Your task to perform on an android device: Set an alarmfor 5pm Image 0: 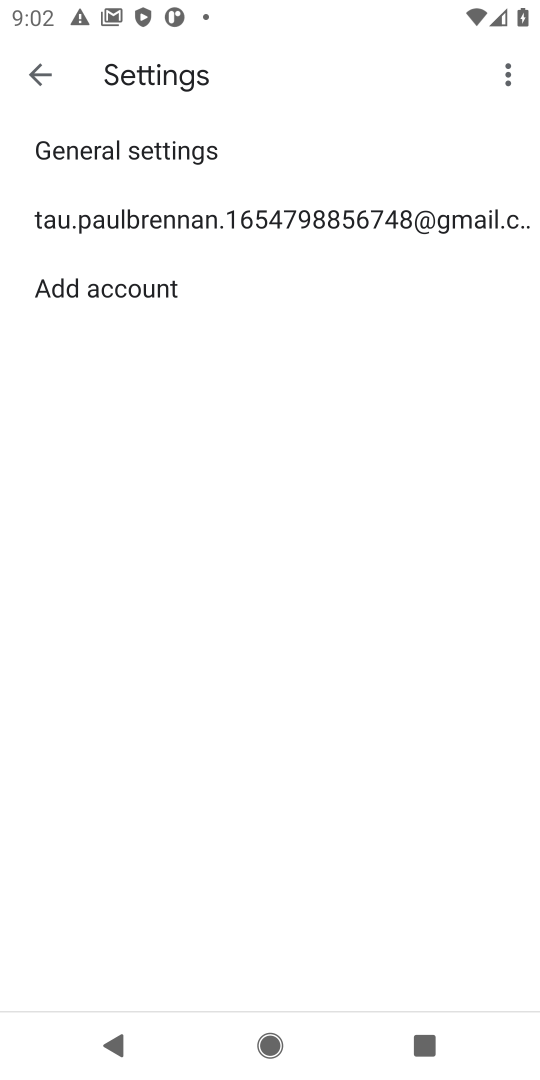
Step 0: press home button
Your task to perform on an android device: Set an alarmfor 5pm Image 1: 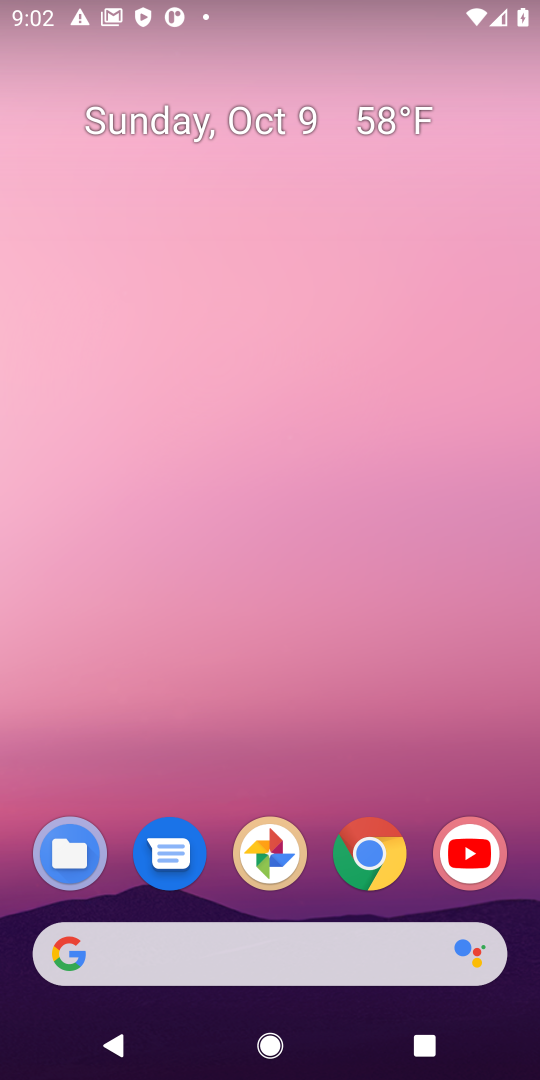
Step 1: drag from (416, 807) to (402, 263)
Your task to perform on an android device: Set an alarmfor 5pm Image 2: 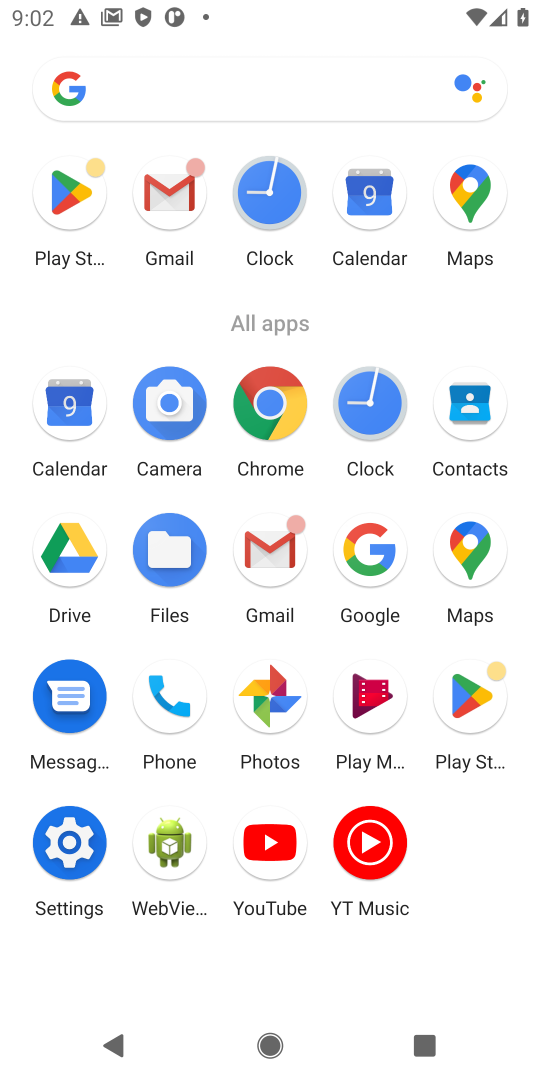
Step 2: click (283, 189)
Your task to perform on an android device: Set an alarmfor 5pm Image 3: 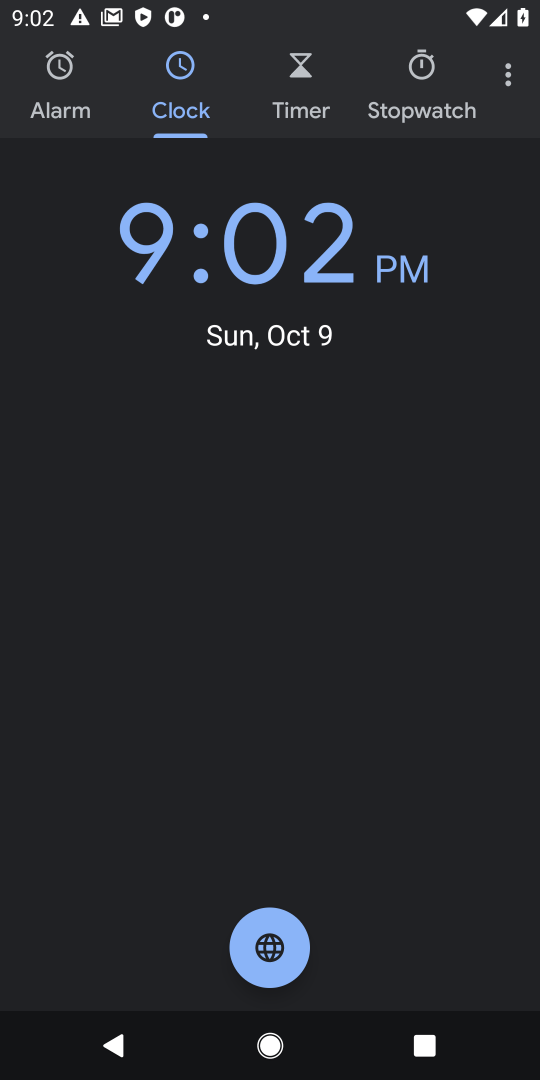
Step 3: click (63, 64)
Your task to perform on an android device: Set an alarmfor 5pm Image 4: 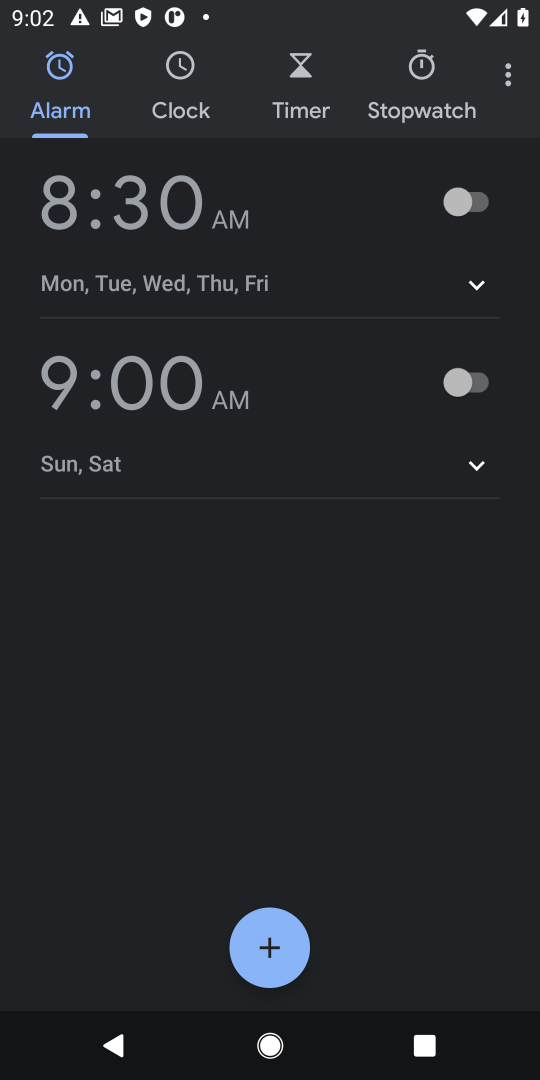
Step 4: click (272, 973)
Your task to perform on an android device: Set an alarmfor 5pm Image 5: 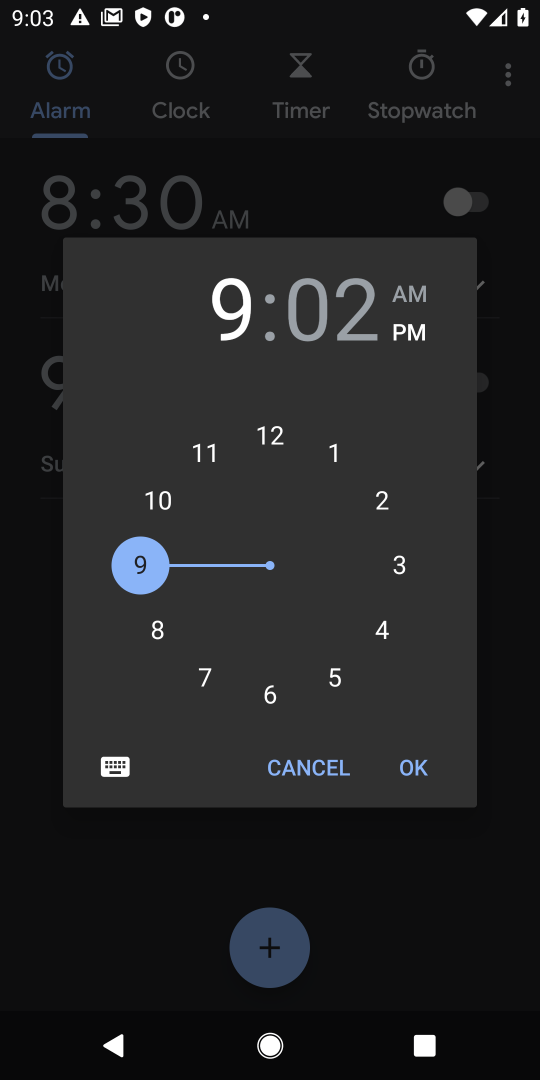
Step 5: drag from (136, 563) to (344, 683)
Your task to perform on an android device: Set an alarmfor 5pm Image 6: 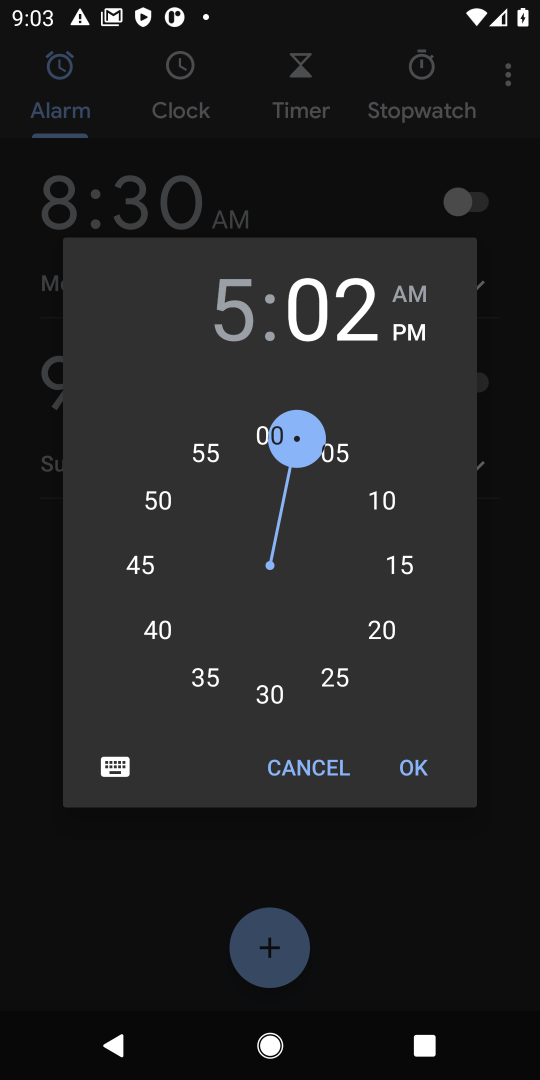
Step 6: click (287, 441)
Your task to perform on an android device: Set an alarmfor 5pm Image 7: 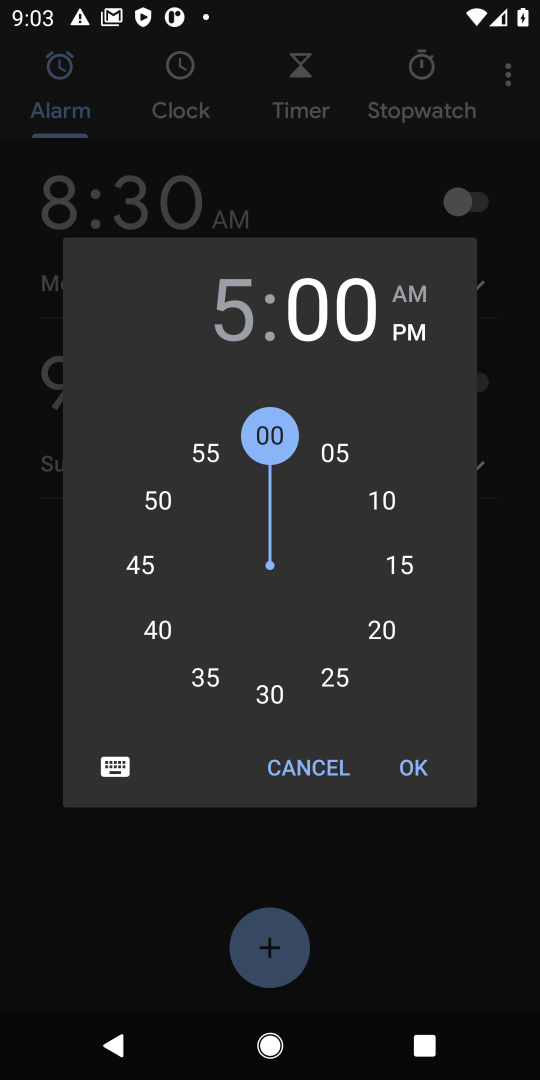
Step 7: click (418, 774)
Your task to perform on an android device: Set an alarmfor 5pm Image 8: 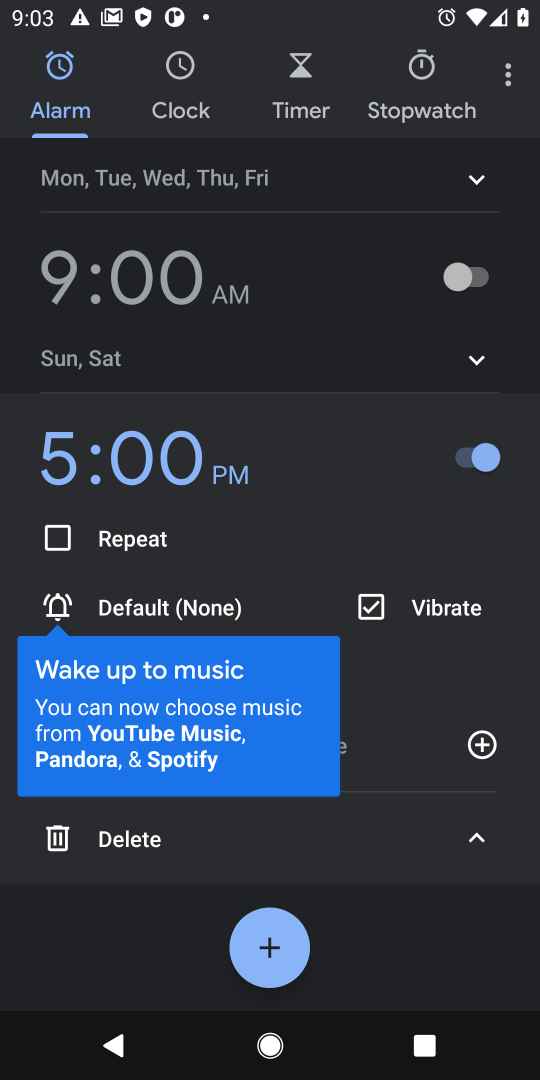
Step 8: task complete